Your task to perform on an android device: Go to battery settings Image 0: 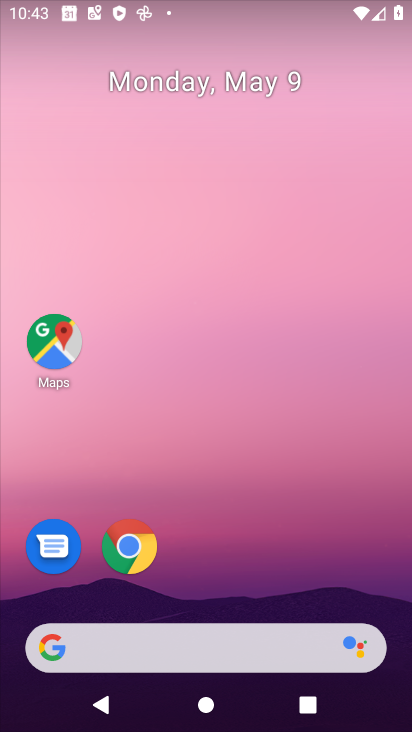
Step 0: drag from (272, 690) to (282, 22)
Your task to perform on an android device: Go to battery settings Image 1: 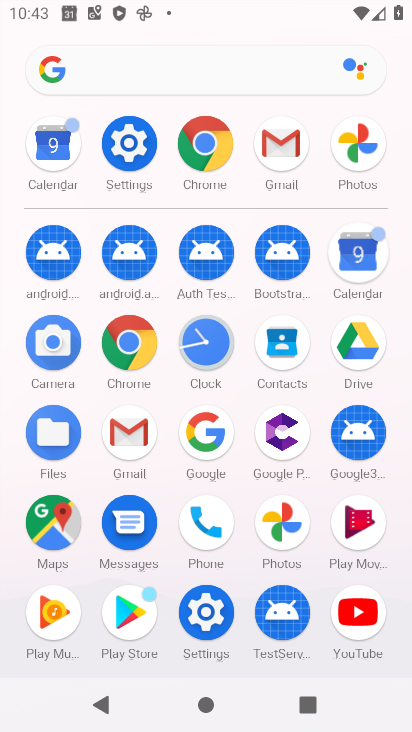
Step 1: click (123, 142)
Your task to perform on an android device: Go to battery settings Image 2: 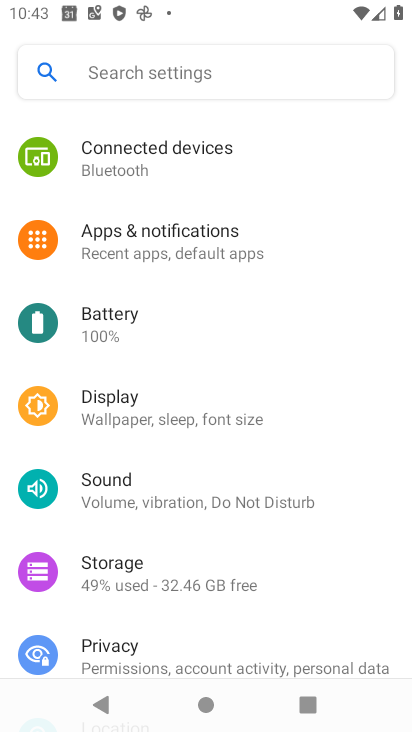
Step 2: click (164, 319)
Your task to perform on an android device: Go to battery settings Image 3: 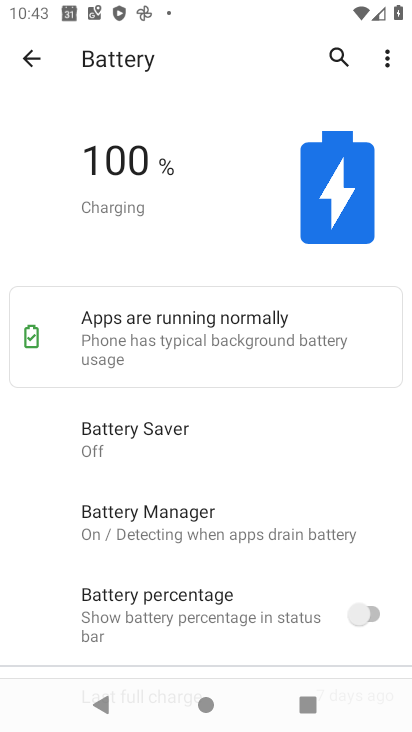
Step 3: task complete